Your task to perform on an android device: Open the web browser Image 0: 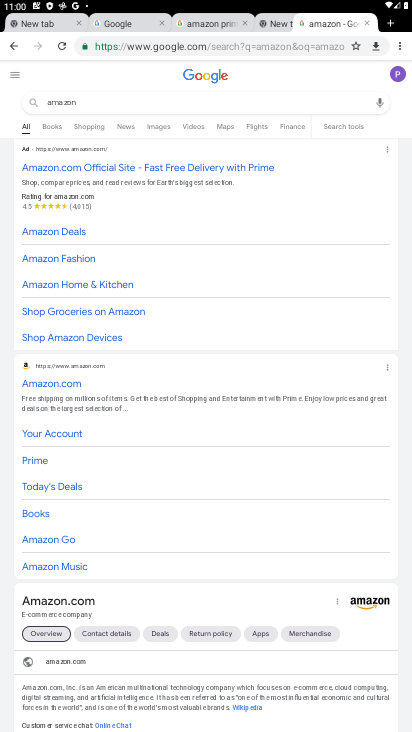
Step 0: click (259, 92)
Your task to perform on an android device: Open the web browser Image 1: 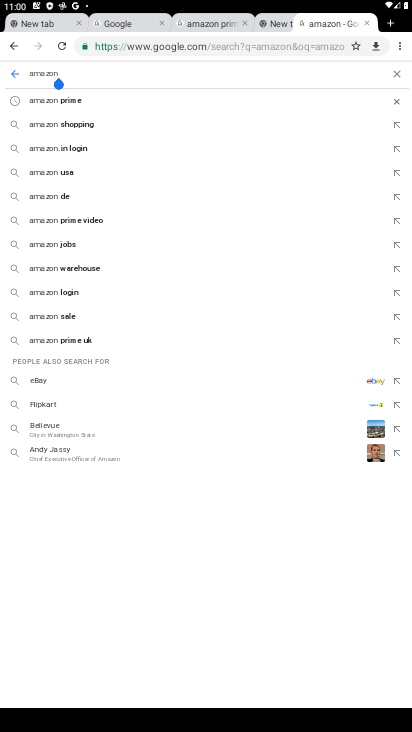
Step 1: task complete